Your task to perform on an android device: Go to eBay Image 0: 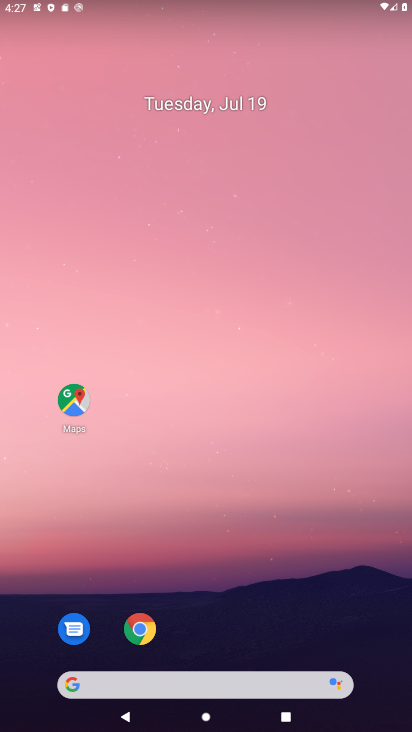
Step 0: click (142, 629)
Your task to perform on an android device: Go to eBay Image 1: 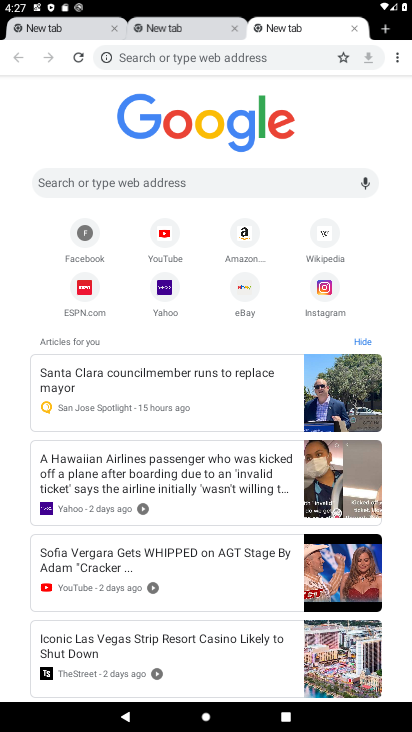
Step 1: click (249, 293)
Your task to perform on an android device: Go to eBay Image 2: 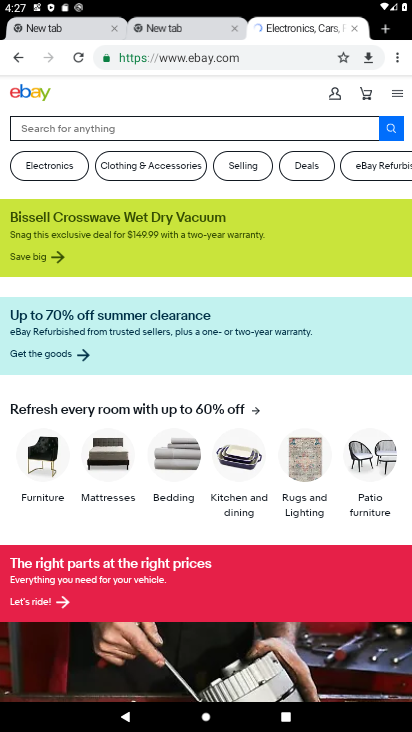
Step 2: task complete